Your task to perform on an android device: turn pop-ups off in chrome Image 0: 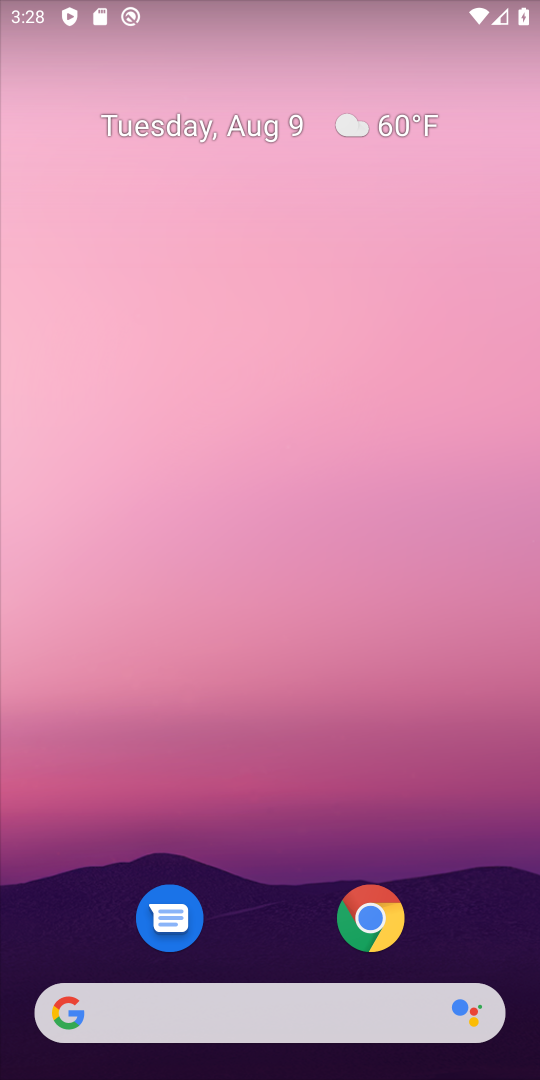
Step 0: click (370, 936)
Your task to perform on an android device: turn pop-ups off in chrome Image 1: 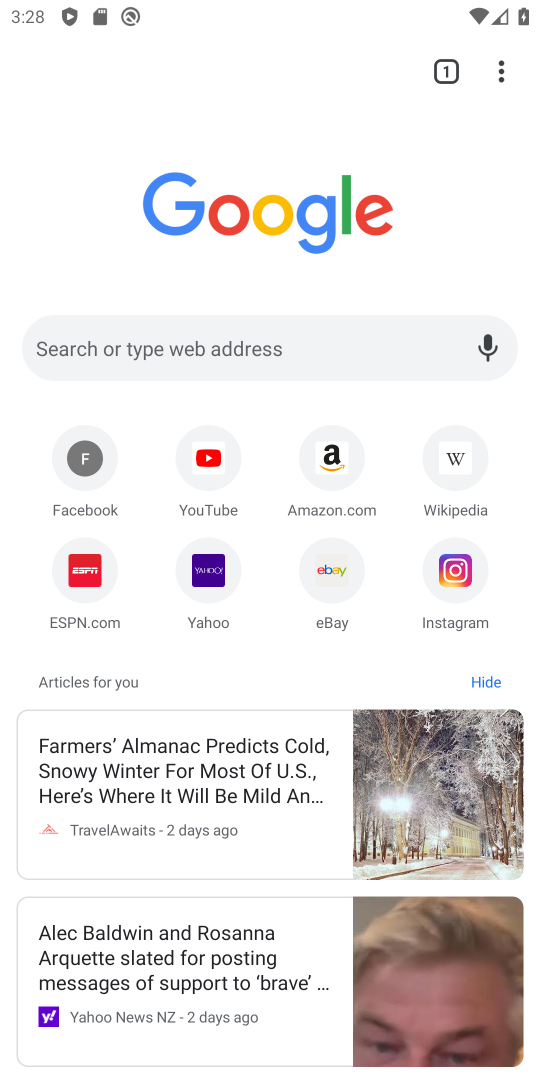
Step 1: drag from (498, 69) to (287, 676)
Your task to perform on an android device: turn pop-ups off in chrome Image 2: 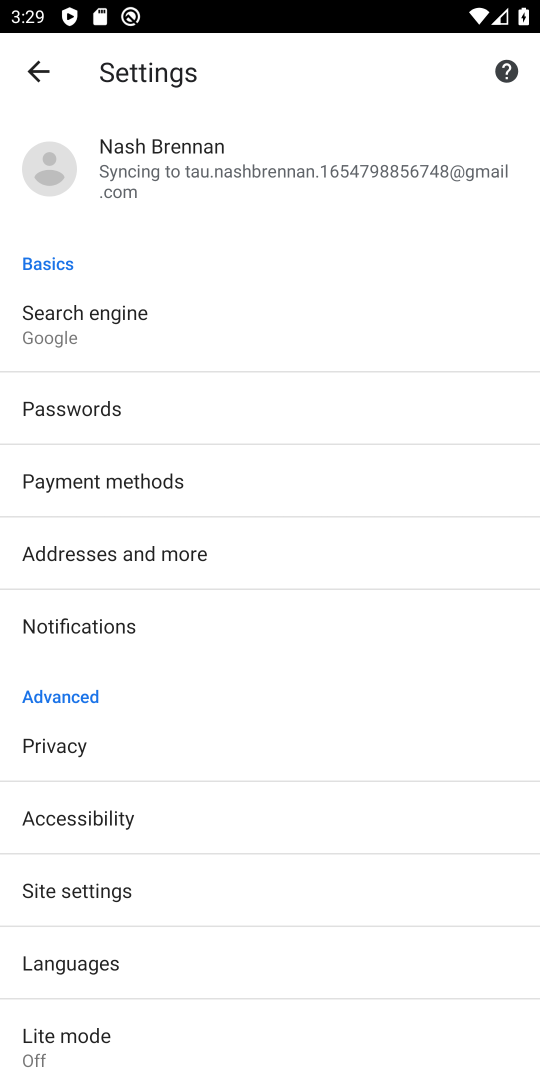
Step 2: click (143, 883)
Your task to perform on an android device: turn pop-ups off in chrome Image 3: 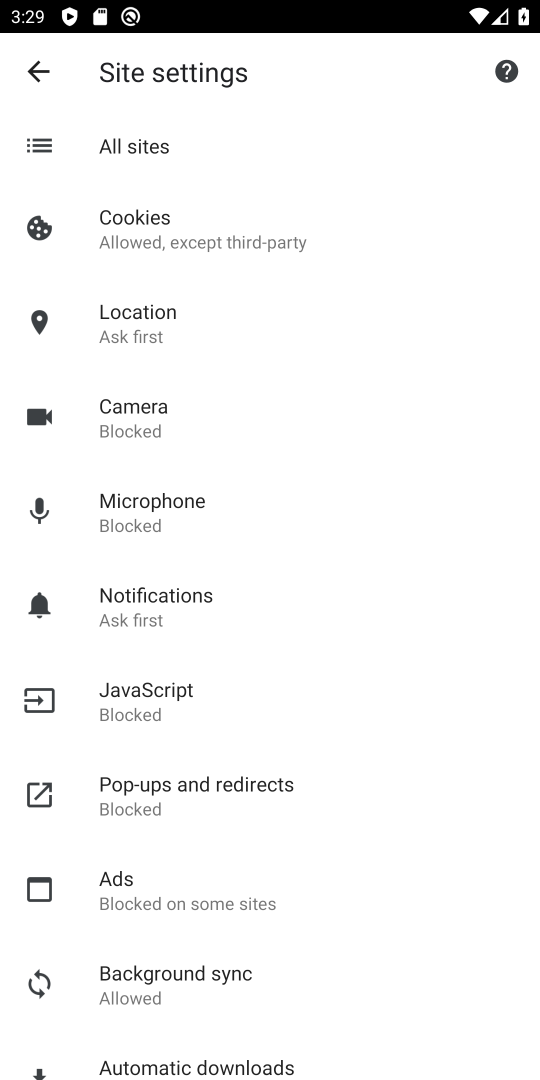
Step 3: click (252, 804)
Your task to perform on an android device: turn pop-ups off in chrome Image 4: 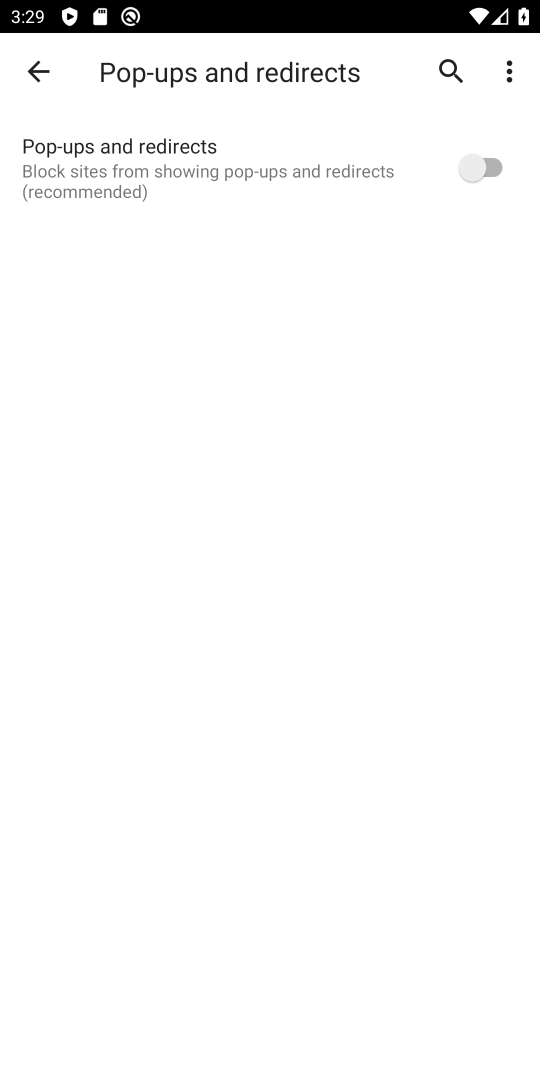
Step 4: task complete